Your task to perform on an android device: Is it going to rain tomorrow? Image 0: 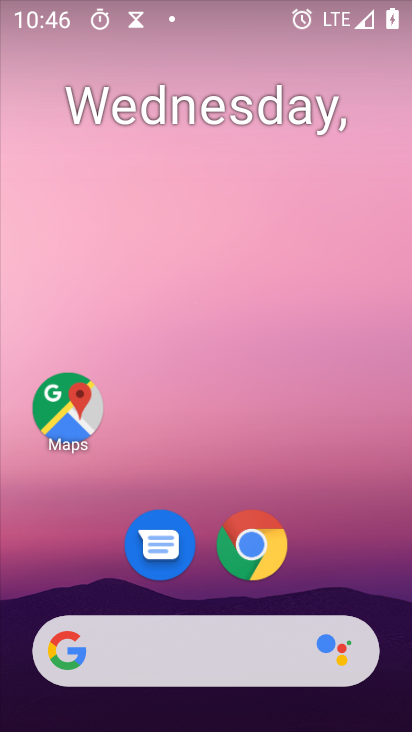
Step 0: click (77, 655)
Your task to perform on an android device: Is it going to rain tomorrow? Image 1: 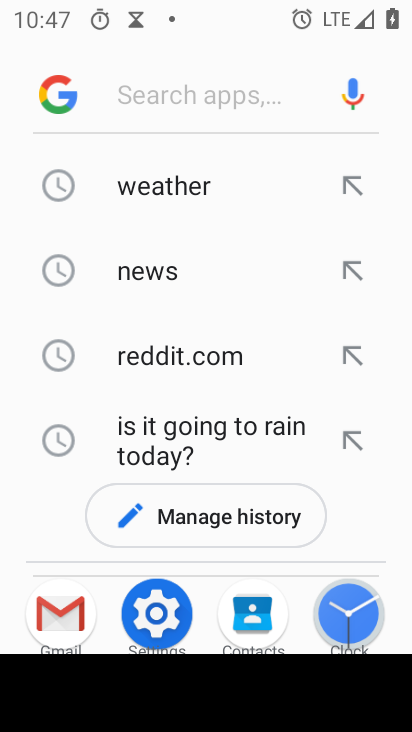
Step 1: click (176, 189)
Your task to perform on an android device: Is it going to rain tomorrow? Image 2: 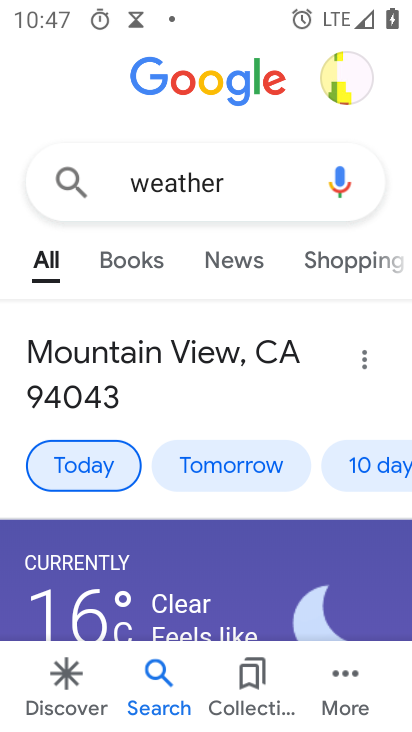
Step 2: click (234, 476)
Your task to perform on an android device: Is it going to rain tomorrow? Image 3: 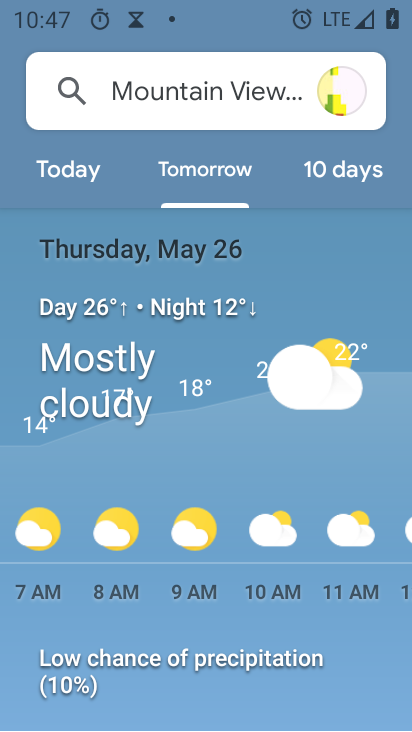
Step 3: task complete